Your task to perform on an android device: Go to Maps Image 0: 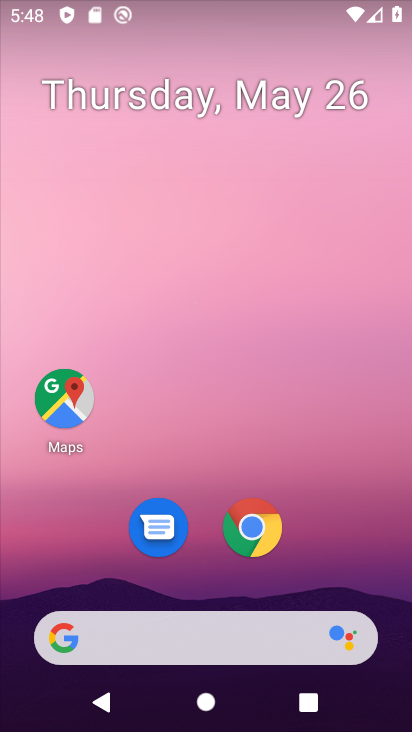
Step 0: click (61, 412)
Your task to perform on an android device: Go to Maps Image 1: 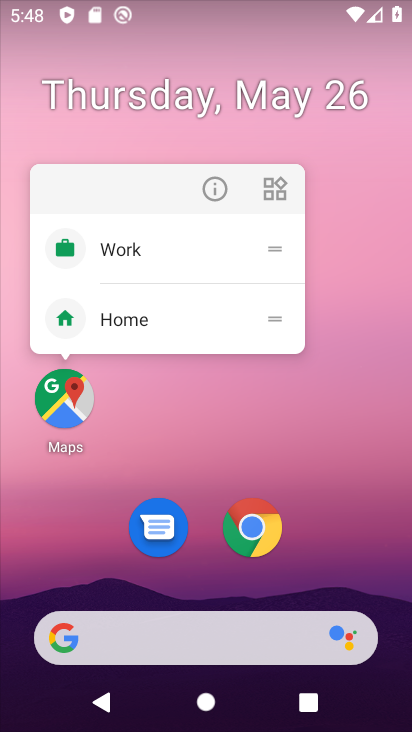
Step 1: click (61, 411)
Your task to perform on an android device: Go to Maps Image 2: 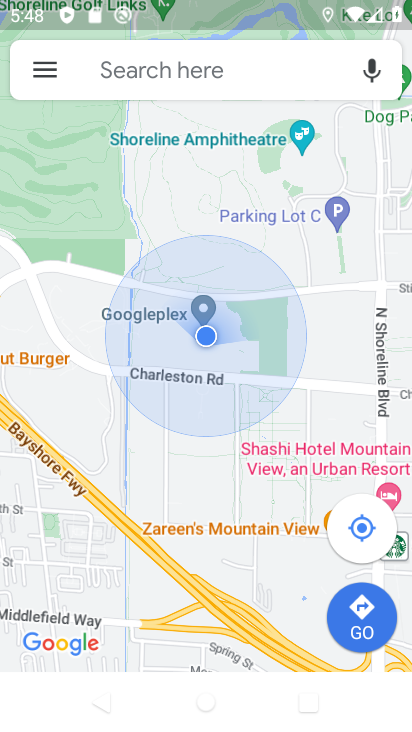
Step 2: task complete